Your task to perform on an android device: find photos in the google photos app Image 0: 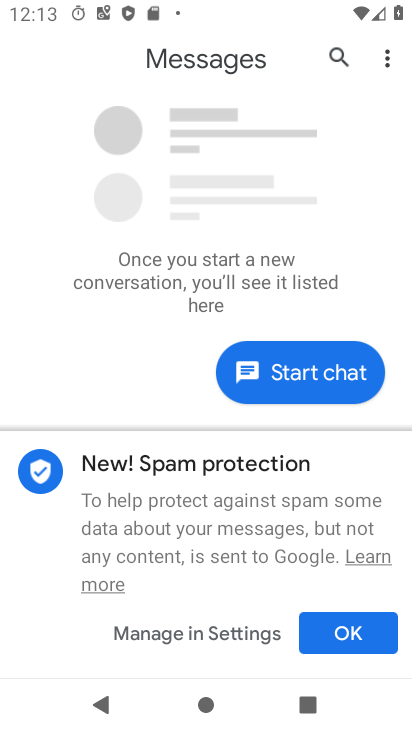
Step 0: press home button
Your task to perform on an android device: find photos in the google photos app Image 1: 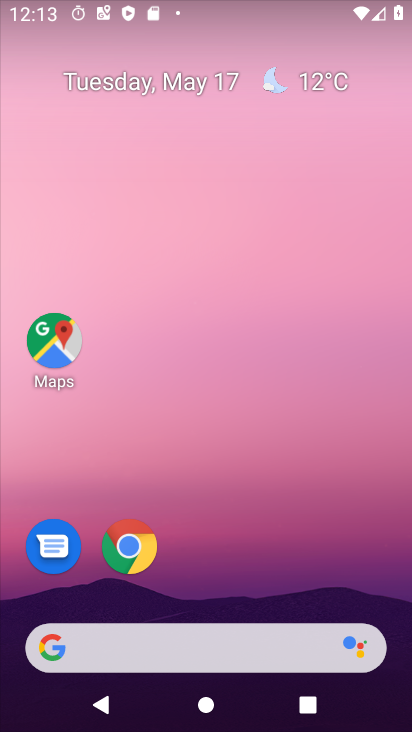
Step 1: drag from (233, 652) to (361, 196)
Your task to perform on an android device: find photos in the google photos app Image 2: 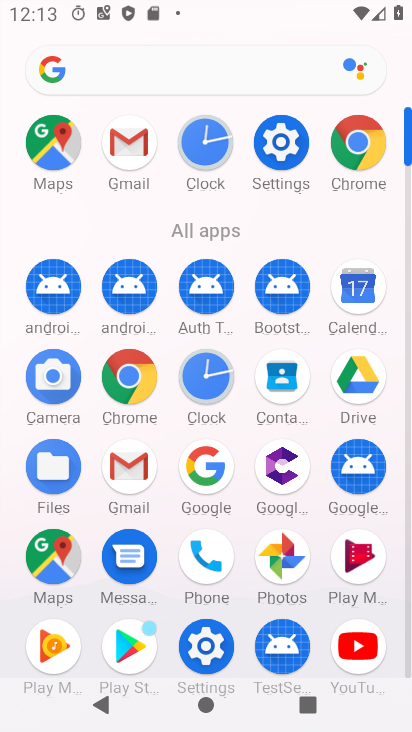
Step 2: click (277, 546)
Your task to perform on an android device: find photos in the google photos app Image 3: 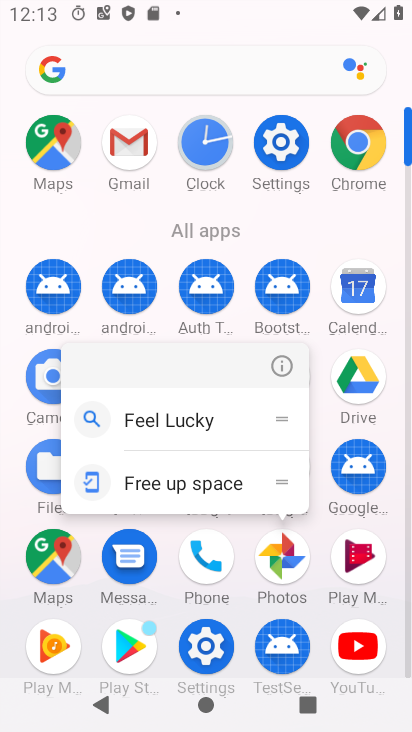
Step 3: click (276, 565)
Your task to perform on an android device: find photos in the google photos app Image 4: 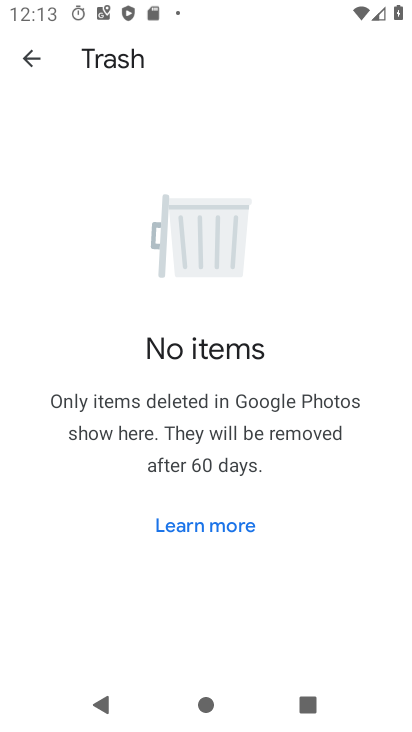
Step 4: click (32, 55)
Your task to perform on an android device: find photos in the google photos app Image 5: 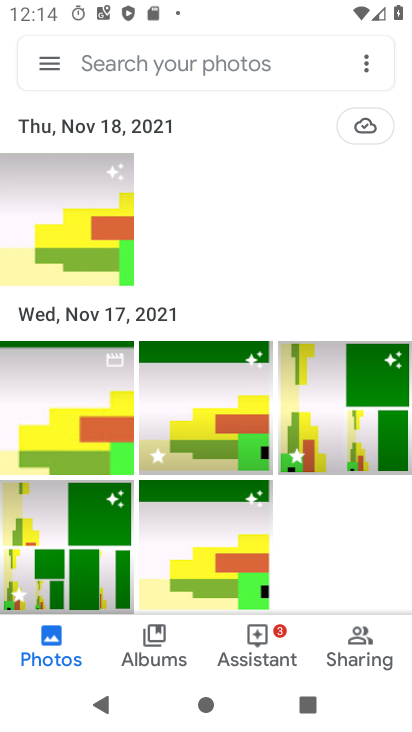
Step 5: task complete